Your task to perform on an android device: Search for sushi restaurants on Maps Image 0: 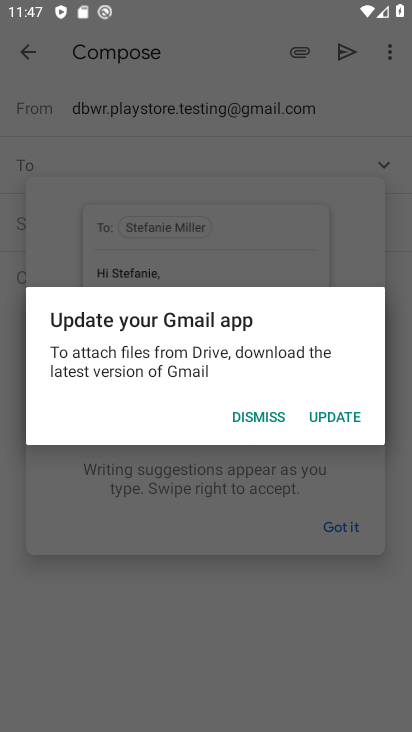
Step 0: press home button
Your task to perform on an android device: Search for sushi restaurants on Maps Image 1: 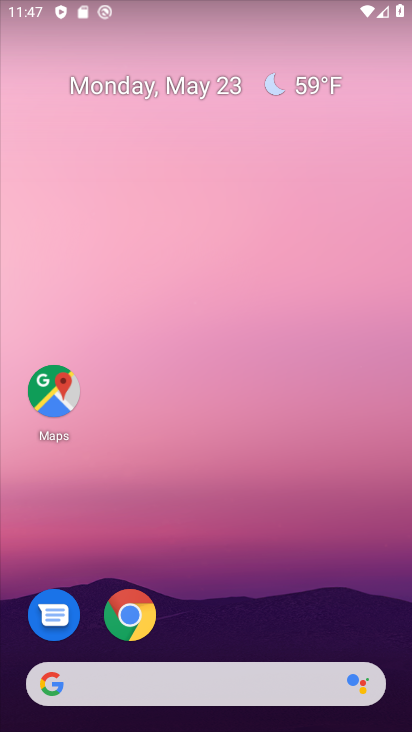
Step 1: drag from (224, 623) to (230, 32)
Your task to perform on an android device: Search for sushi restaurants on Maps Image 2: 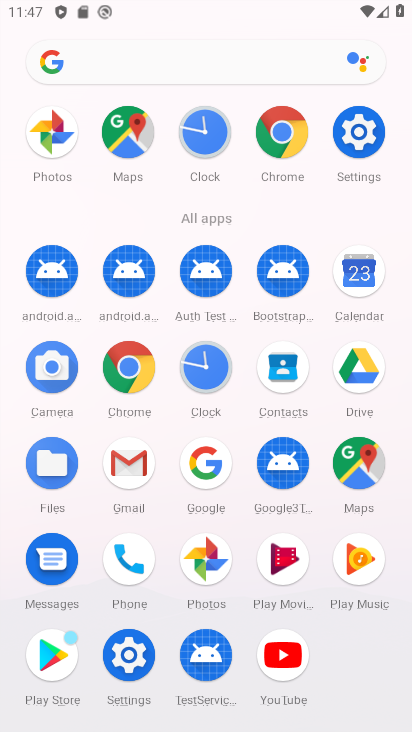
Step 2: drag from (11, 580) to (11, 181)
Your task to perform on an android device: Search for sushi restaurants on Maps Image 3: 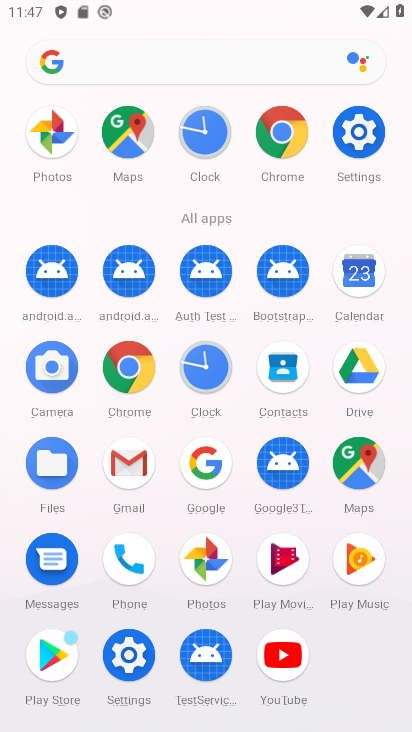
Step 3: click (356, 461)
Your task to perform on an android device: Search for sushi restaurants on Maps Image 4: 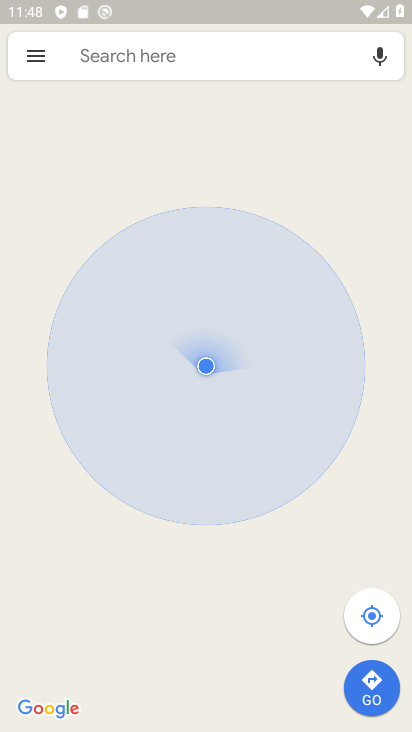
Step 4: click (201, 56)
Your task to perform on an android device: Search for sushi restaurants on Maps Image 5: 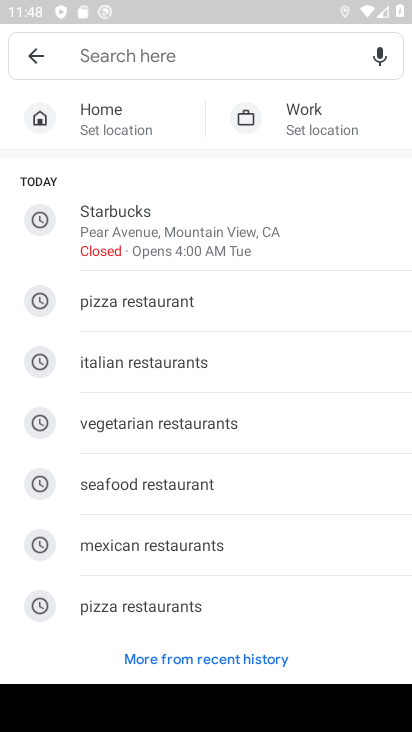
Step 5: type "sushi restaurants"
Your task to perform on an android device: Search for sushi restaurants on Maps Image 6: 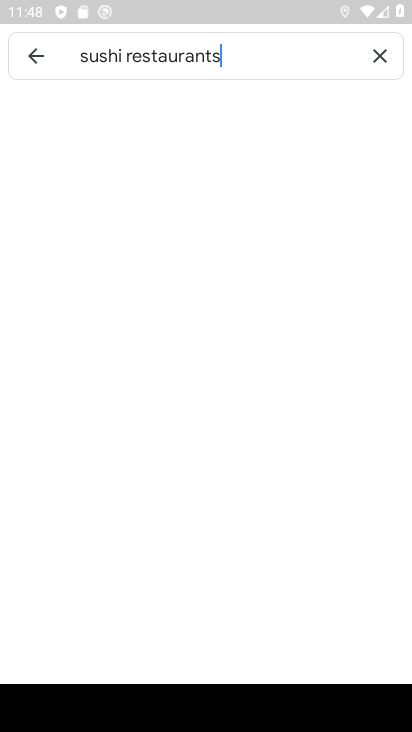
Step 6: type ""
Your task to perform on an android device: Search for sushi restaurants on Maps Image 7: 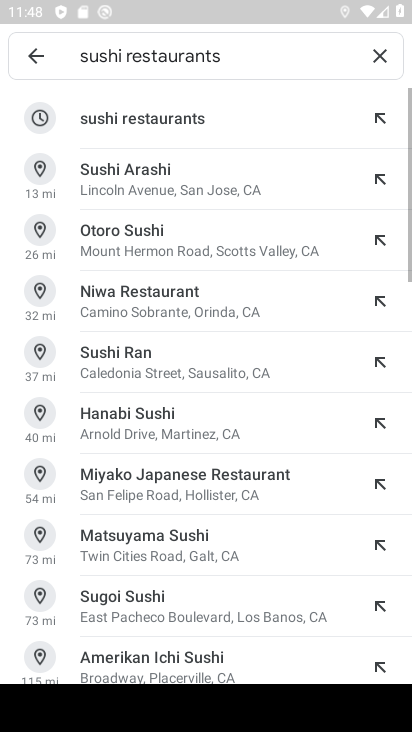
Step 7: click (168, 112)
Your task to perform on an android device: Search for sushi restaurants on Maps Image 8: 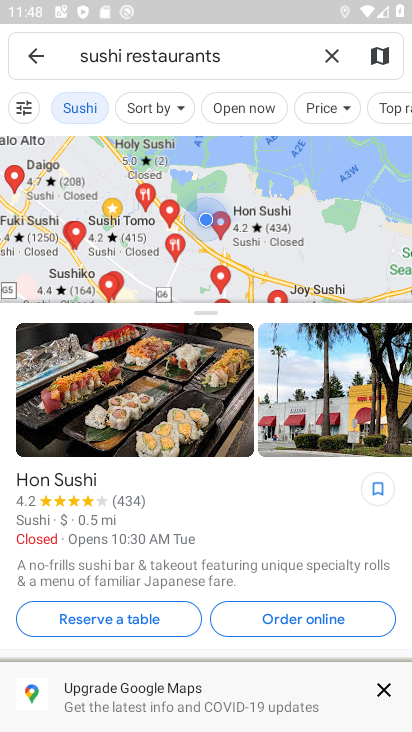
Step 8: task complete